Your task to perform on an android device: Play the last video I watched on Youtube Image 0: 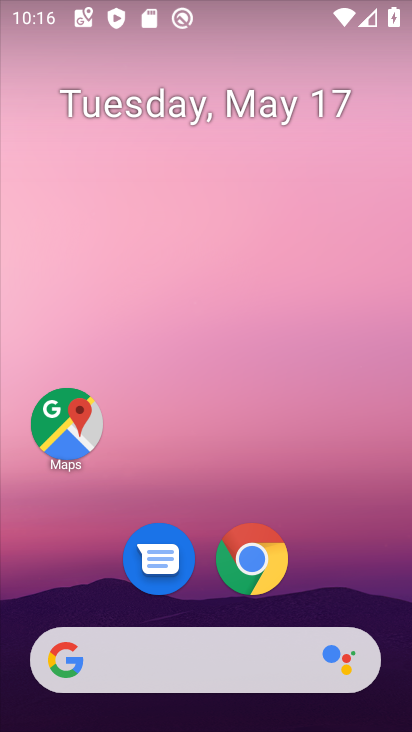
Step 0: drag from (290, 714) to (276, 153)
Your task to perform on an android device: Play the last video I watched on Youtube Image 1: 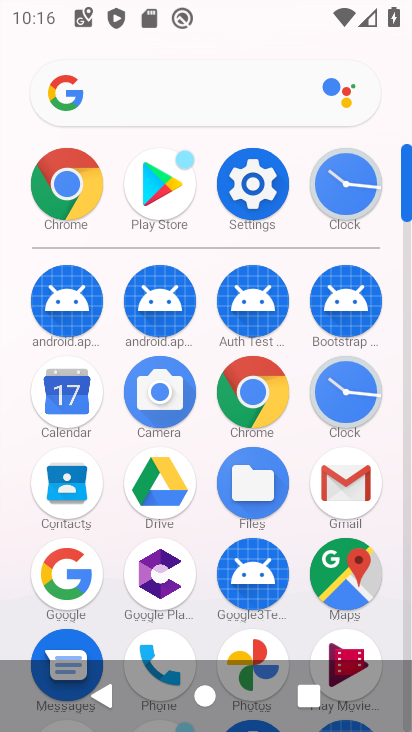
Step 1: drag from (196, 626) to (283, 107)
Your task to perform on an android device: Play the last video I watched on Youtube Image 2: 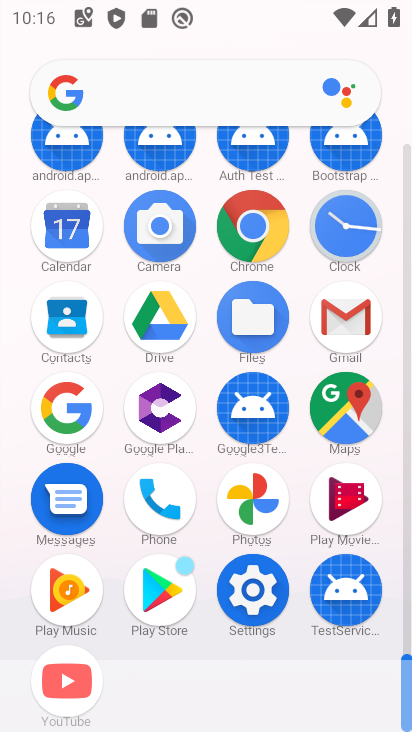
Step 2: click (73, 653)
Your task to perform on an android device: Play the last video I watched on Youtube Image 3: 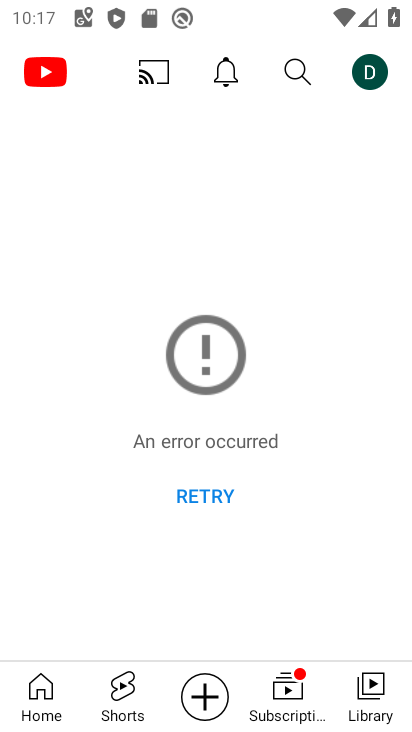
Step 3: click (367, 683)
Your task to perform on an android device: Play the last video I watched on Youtube Image 4: 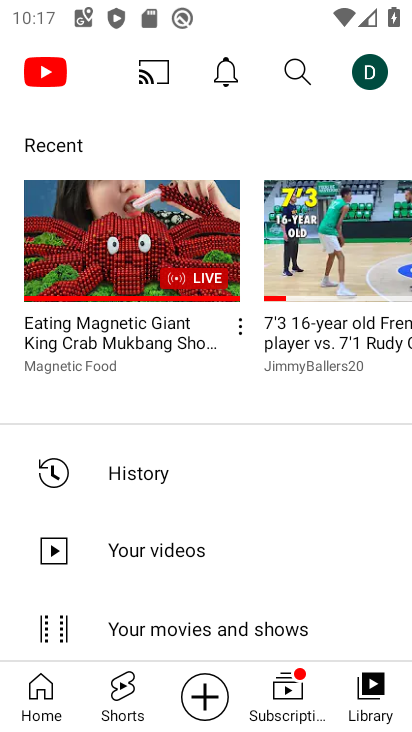
Step 4: click (120, 271)
Your task to perform on an android device: Play the last video I watched on Youtube Image 5: 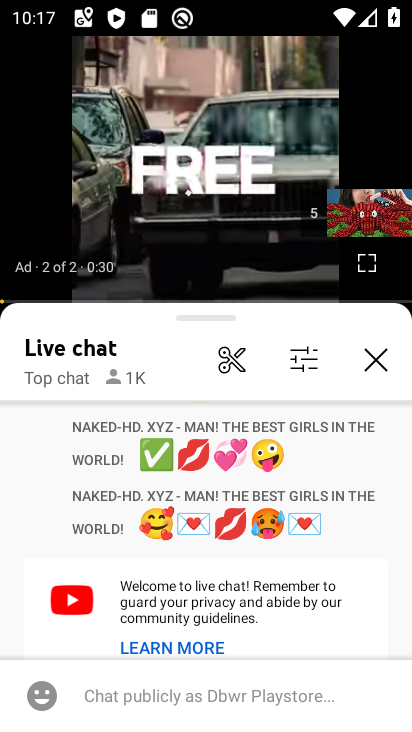
Step 5: task complete